Your task to perform on an android device: Open display settings Image 0: 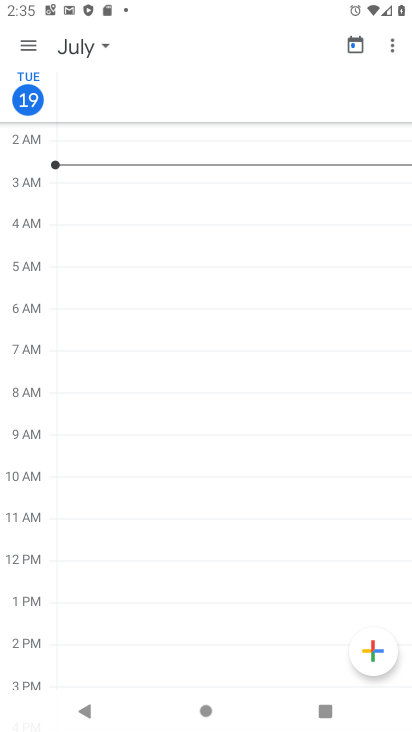
Step 0: press home button
Your task to perform on an android device: Open display settings Image 1: 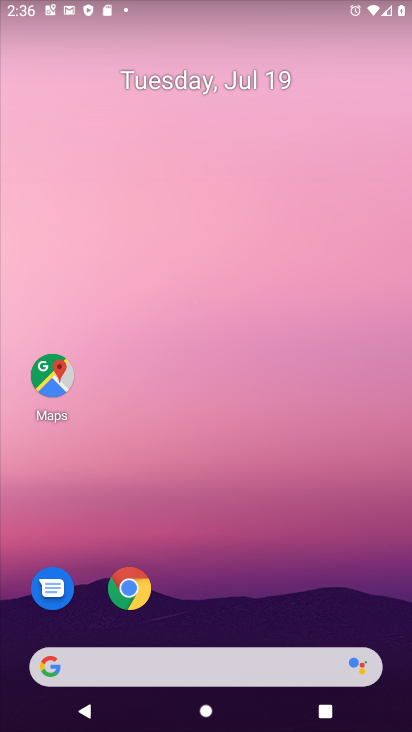
Step 1: drag from (327, 562) to (238, 26)
Your task to perform on an android device: Open display settings Image 2: 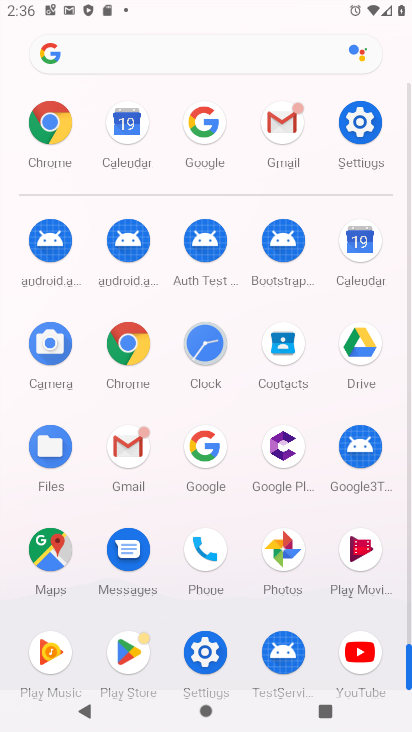
Step 2: click (373, 128)
Your task to perform on an android device: Open display settings Image 3: 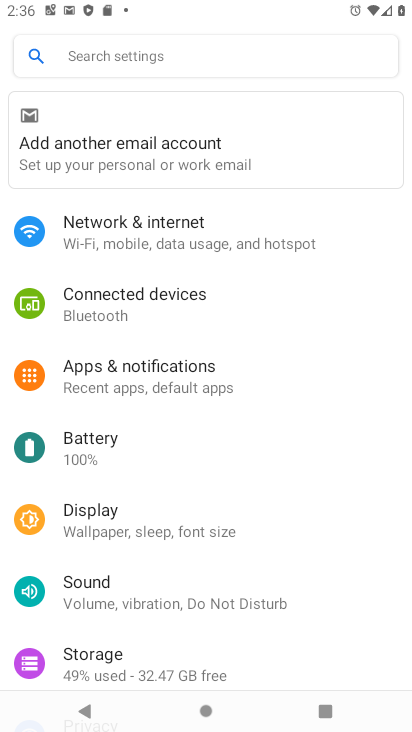
Step 3: click (106, 518)
Your task to perform on an android device: Open display settings Image 4: 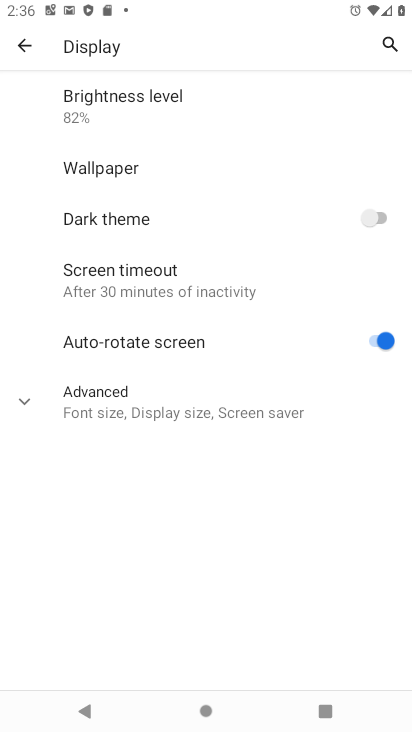
Step 4: task complete